Your task to perform on an android device: change the clock display to digital Image 0: 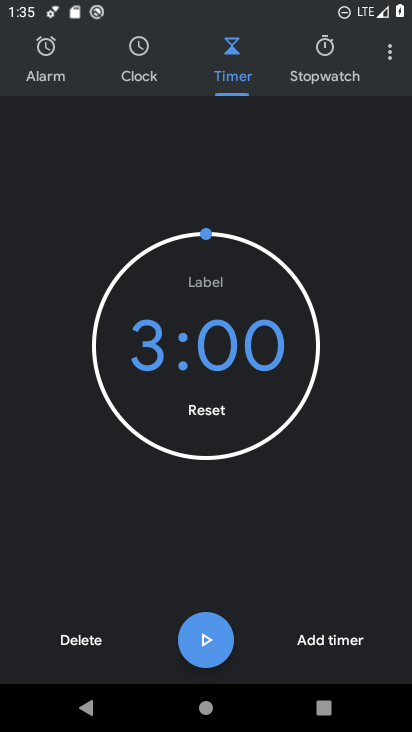
Step 0: press home button
Your task to perform on an android device: change the clock display to digital Image 1: 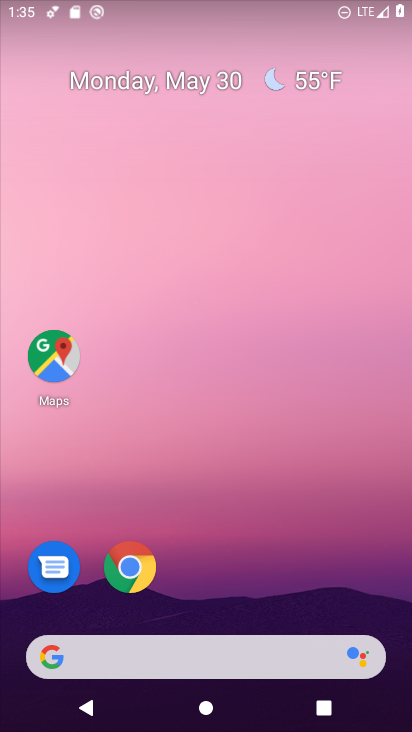
Step 1: drag from (221, 602) to (280, 100)
Your task to perform on an android device: change the clock display to digital Image 2: 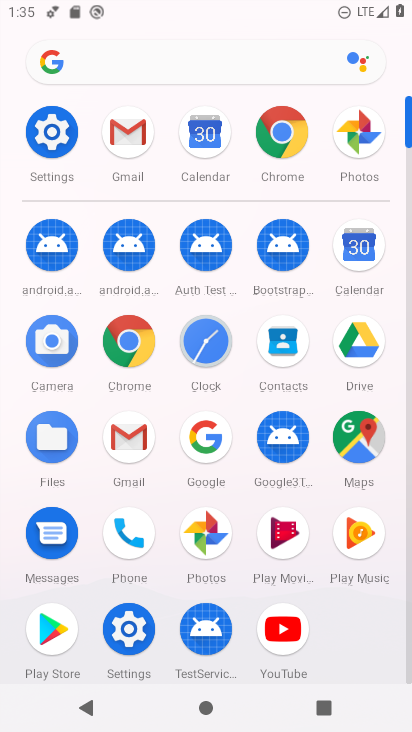
Step 2: click (208, 334)
Your task to perform on an android device: change the clock display to digital Image 3: 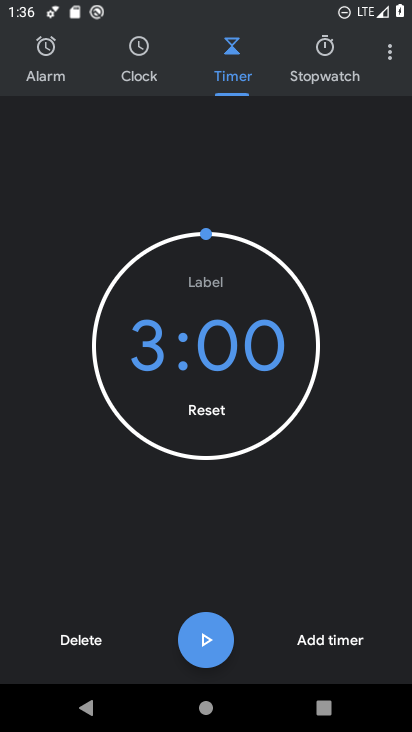
Step 3: click (391, 56)
Your task to perform on an android device: change the clock display to digital Image 4: 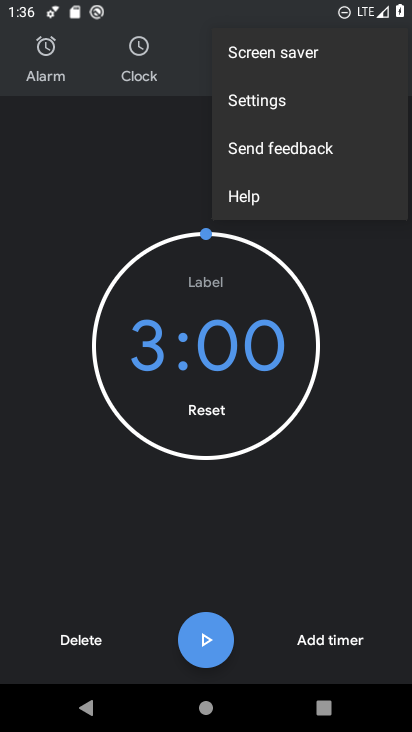
Step 4: click (308, 101)
Your task to perform on an android device: change the clock display to digital Image 5: 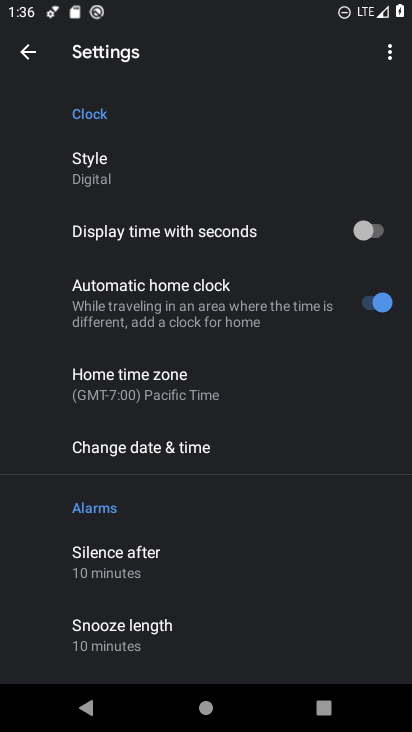
Step 5: click (143, 172)
Your task to perform on an android device: change the clock display to digital Image 6: 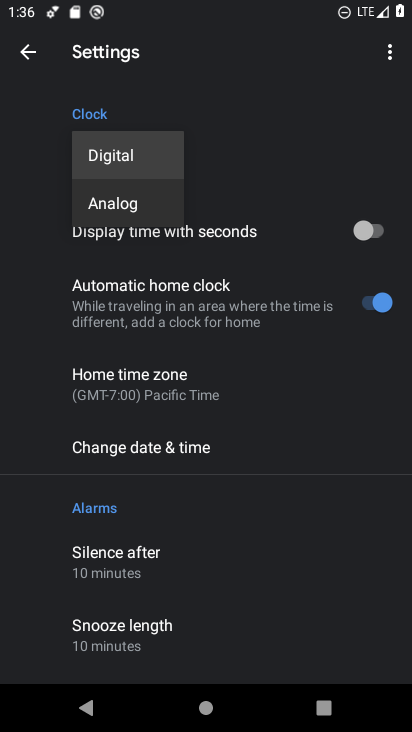
Step 6: click (147, 160)
Your task to perform on an android device: change the clock display to digital Image 7: 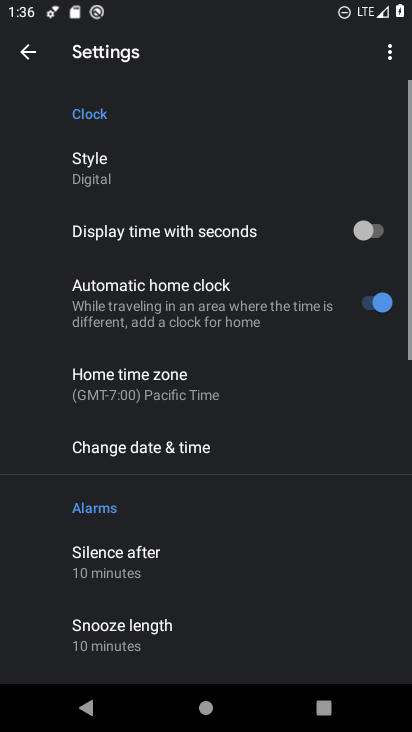
Step 7: task complete